Your task to perform on an android device: turn off picture-in-picture Image 0: 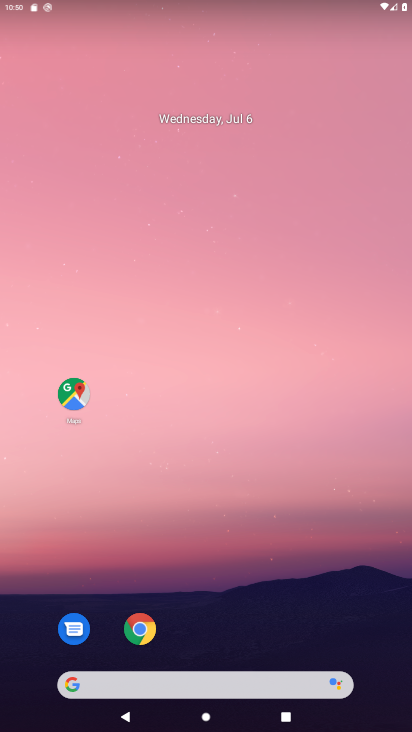
Step 0: click (140, 625)
Your task to perform on an android device: turn off picture-in-picture Image 1: 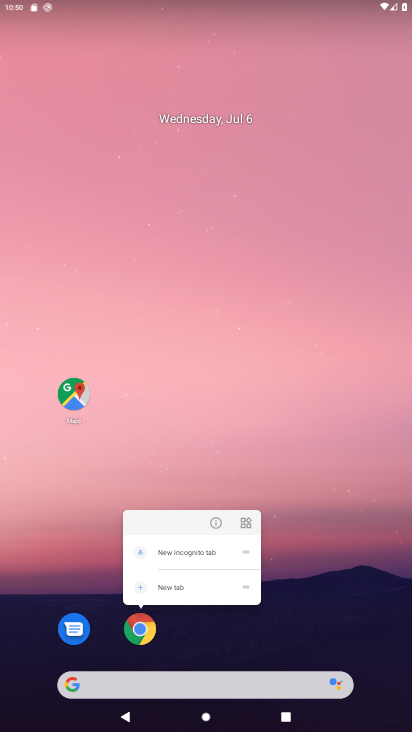
Step 1: click (211, 522)
Your task to perform on an android device: turn off picture-in-picture Image 2: 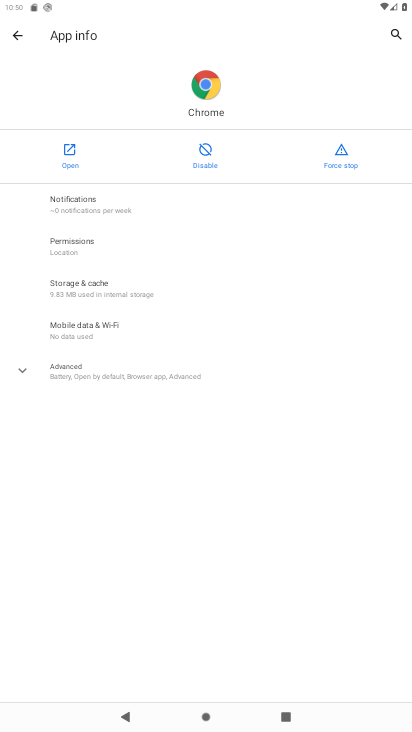
Step 2: click (27, 370)
Your task to perform on an android device: turn off picture-in-picture Image 3: 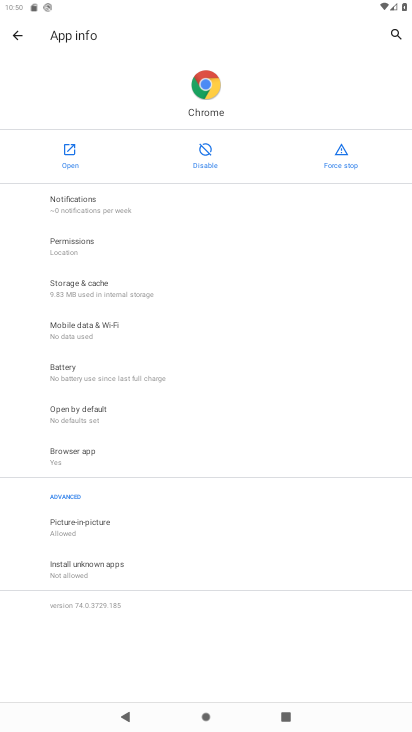
Step 3: drag from (174, 587) to (192, 307)
Your task to perform on an android device: turn off picture-in-picture Image 4: 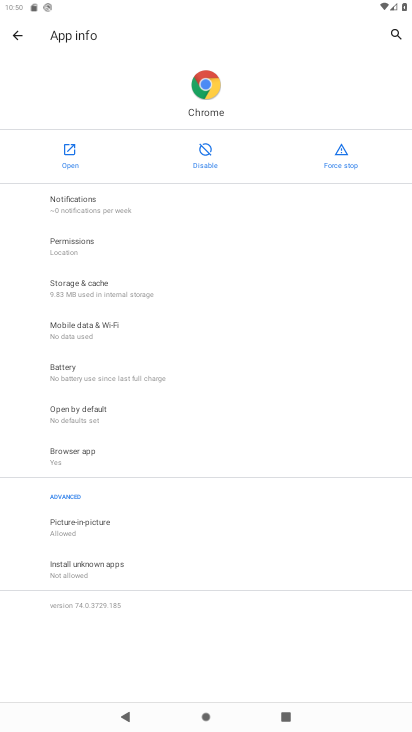
Step 4: click (91, 526)
Your task to perform on an android device: turn off picture-in-picture Image 5: 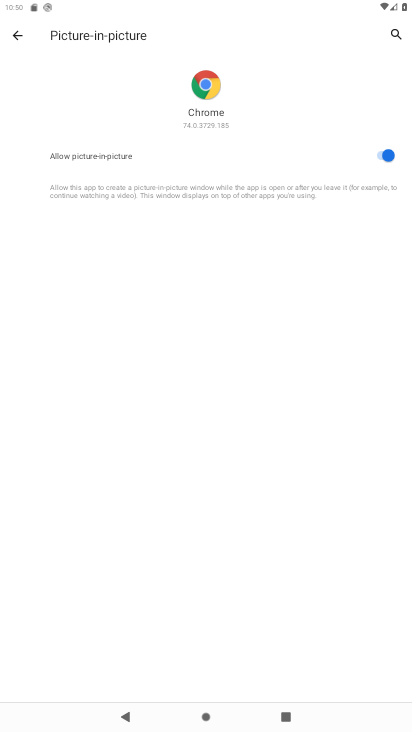
Step 5: click (383, 153)
Your task to perform on an android device: turn off picture-in-picture Image 6: 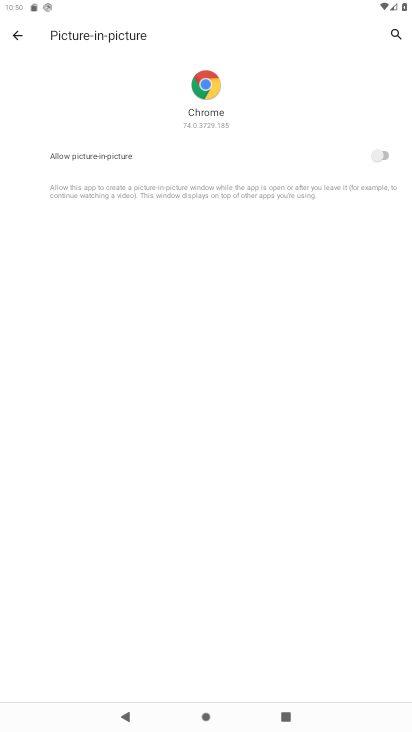
Step 6: task complete